Your task to perform on an android device: Do I have any events tomorrow? Image 0: 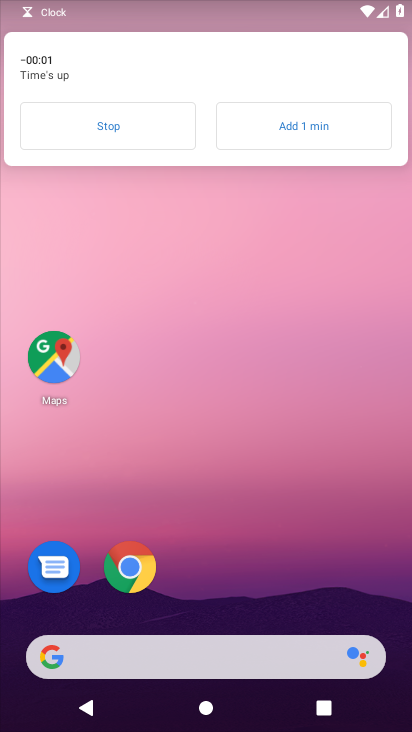
Step 0: drag from (240, 727) to (243, 7)
Your task to perform on an android device: Do I have any events tomorrow? Image 1: 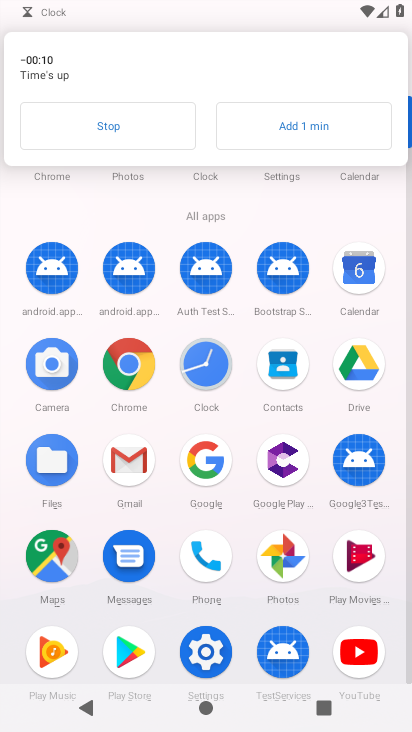
Step 1: click (359, 269)
Your task to perform on an android device: Do I have any events tomorrow? Image 2: 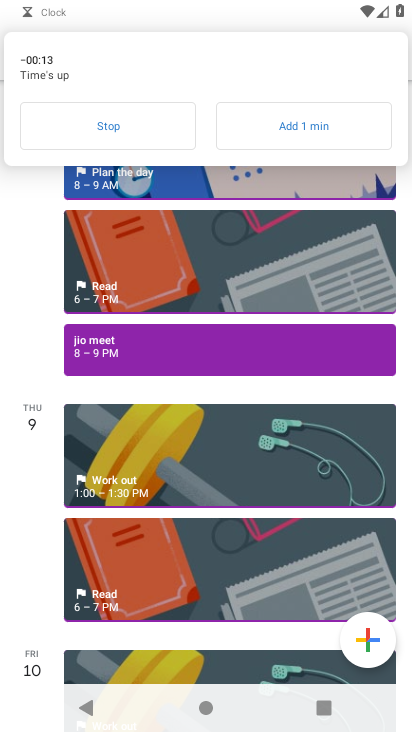
Step 2: click (116, 127)
Your task to perform on an android device: Do I have any events tomorrow? Image 3: 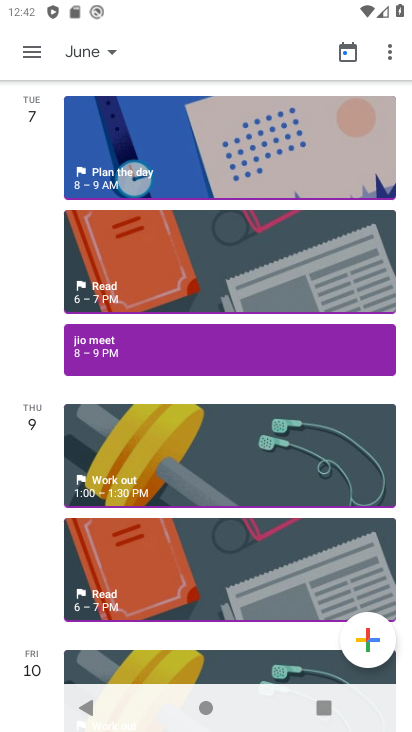
Step 3: task complete